Your task to perform on an android device: delete the emails in spam in the gmail app Image 0: 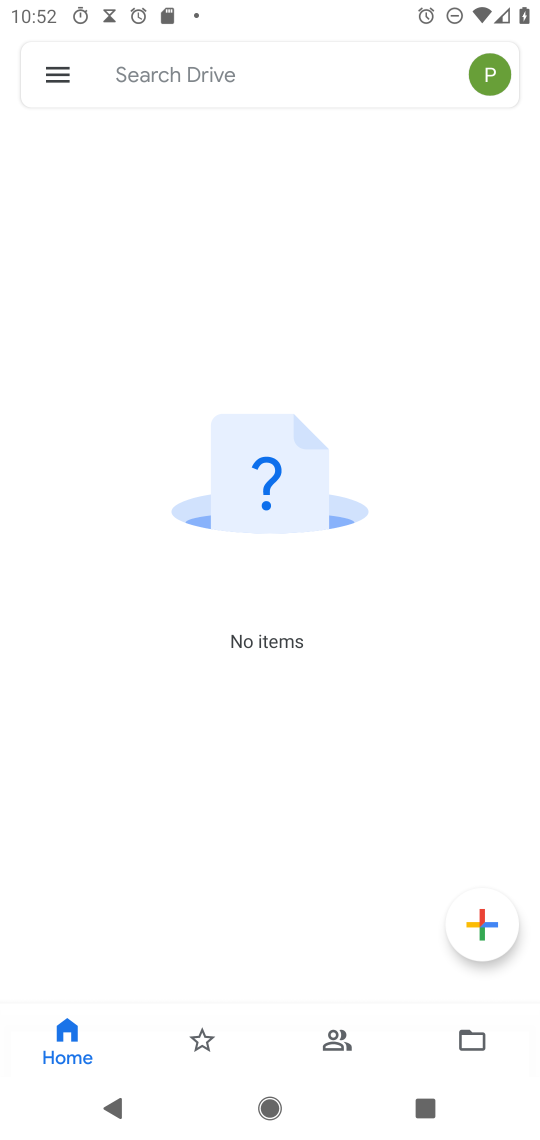
Step 0: press home button
Your task to perform on an android device: delete the emails in spam in the gmail app Image 1: 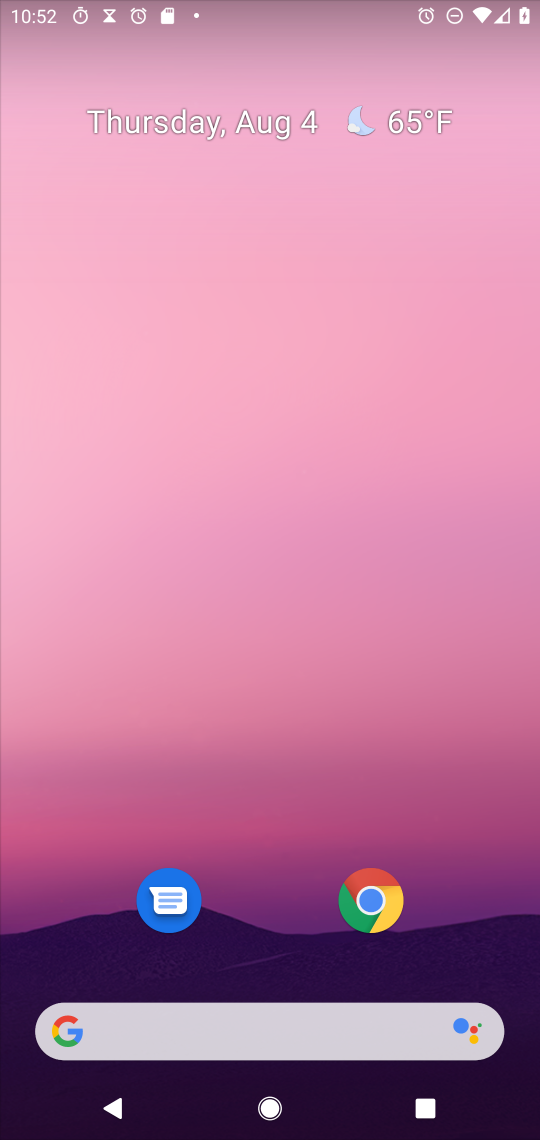
Step 1: drag from (243, 1051) to (304, 223)
Your task to perform on an android device: delete the emails in spam in the gmail app Image 2: 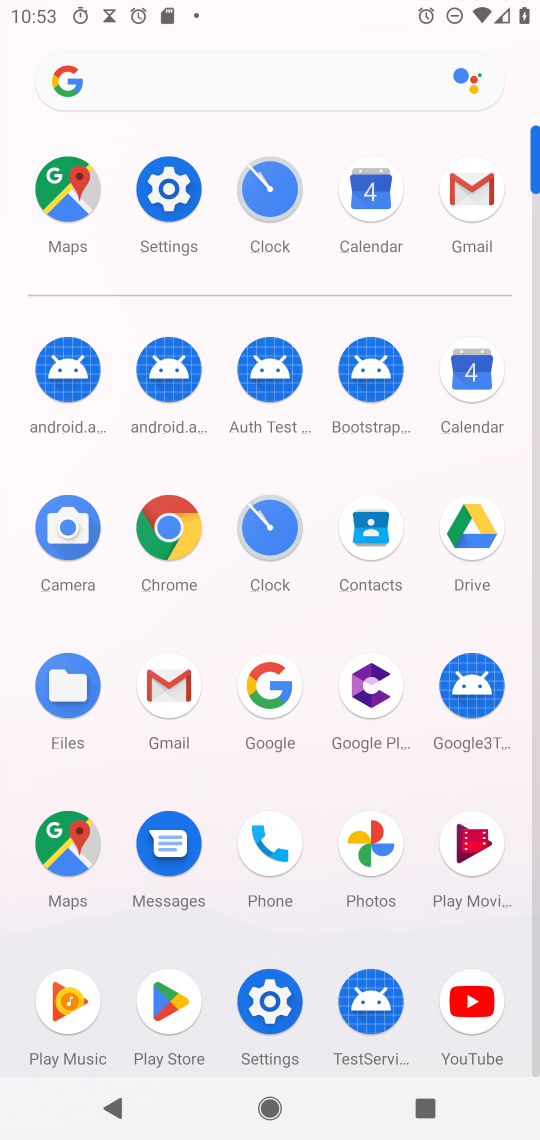
Step 2: click (470, 183)
Your task to perform on an android device: delete the emails in spam in the gmail app Image 3: 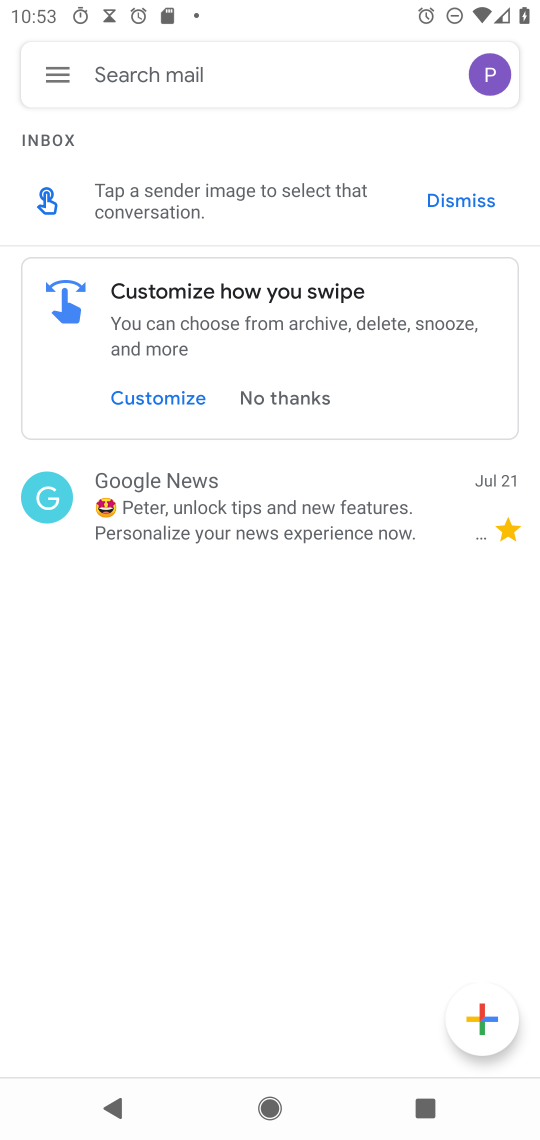
Step 3: click (65, 83)
Your task to perform on an android device: delete the emails in spam in the gmail app Image 4: 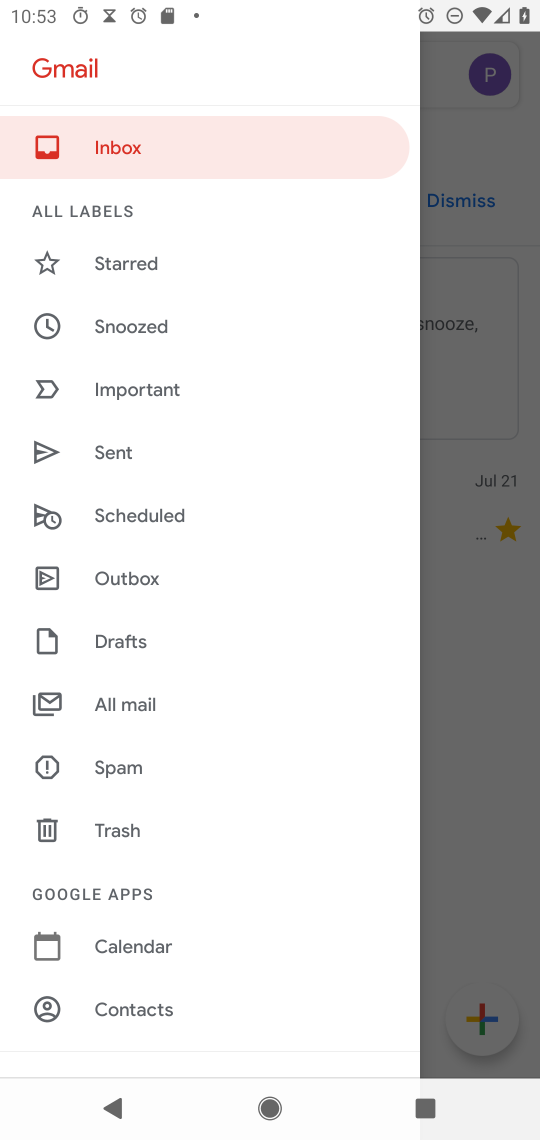
Step 4: click (116, 765)
Your task to perform on an android device: delete the emails in spam in the gmail app Image 5: 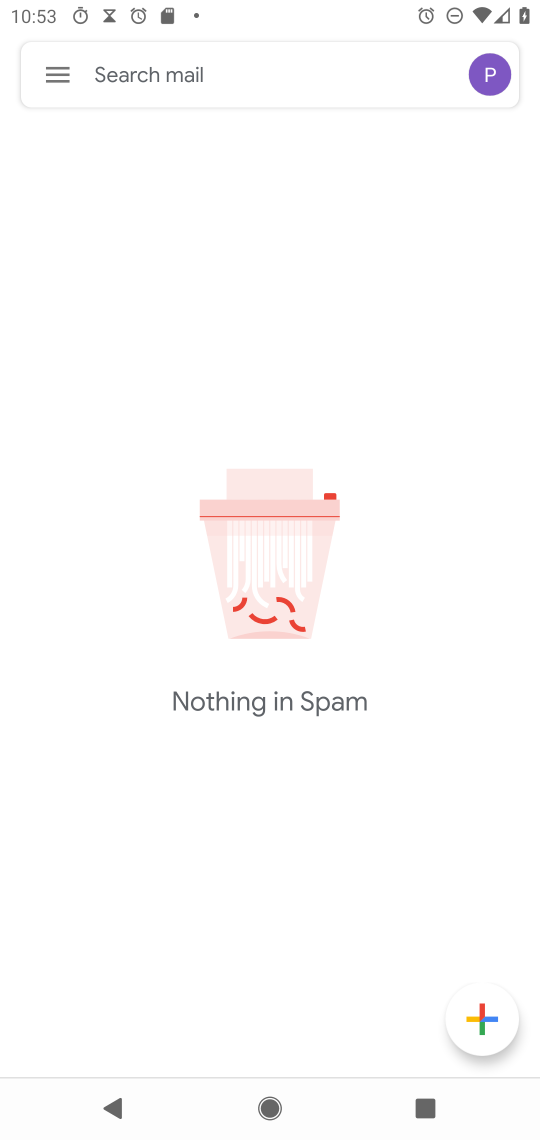
Step 5: task complete